Your task to perform on an android device: Go to internet settings Image 0: 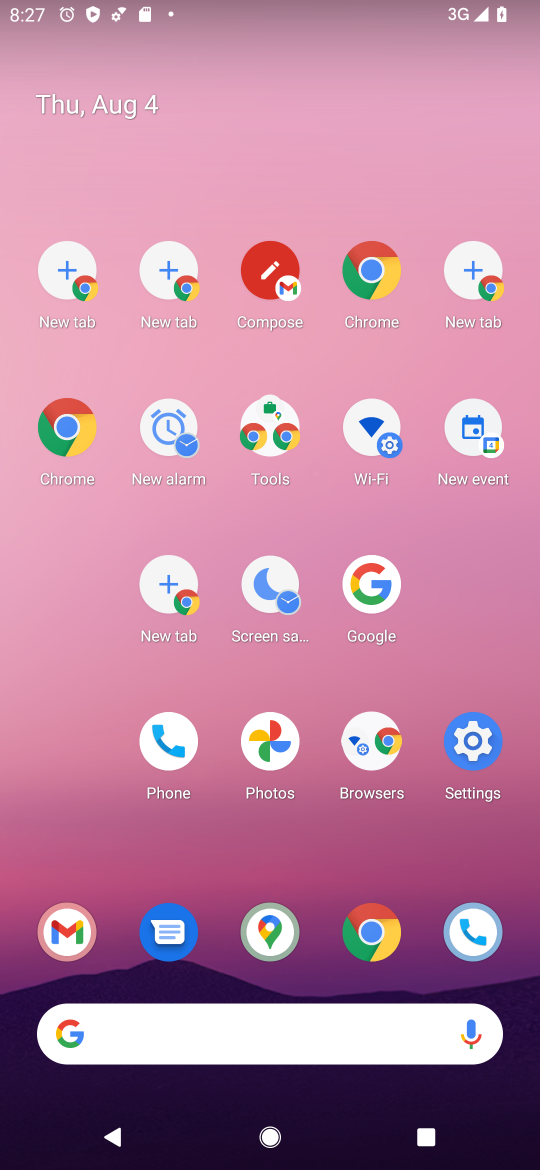
Step 0: drag from (260, 1116) to (310, 450)
Your task to perform on an android device: Go to internet settings Image 1: 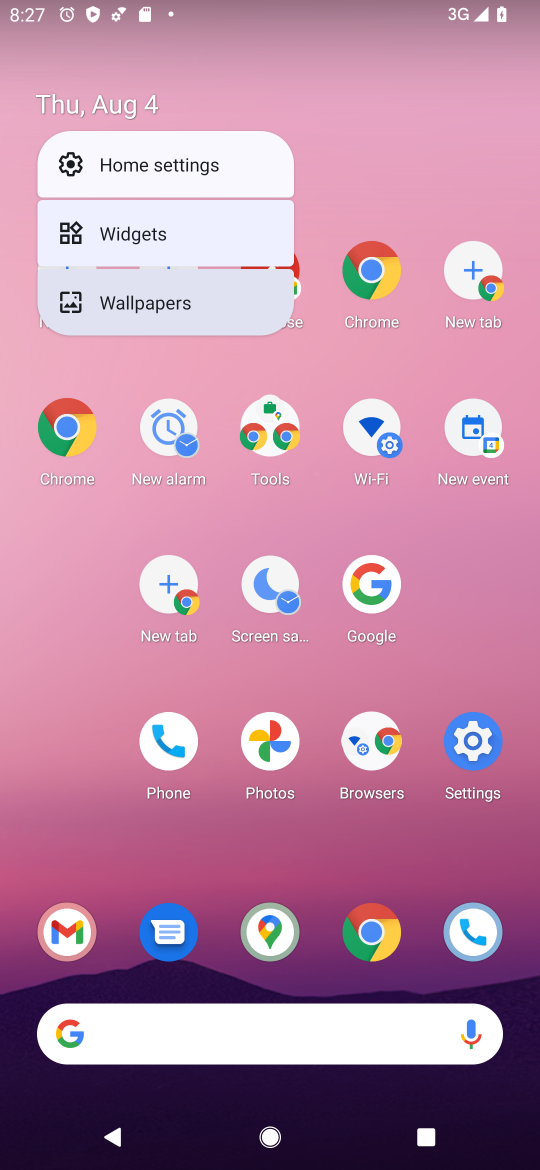
Step 1: click (469, 749)
Your task to perform on an android device: Go to internet settings Image 2: 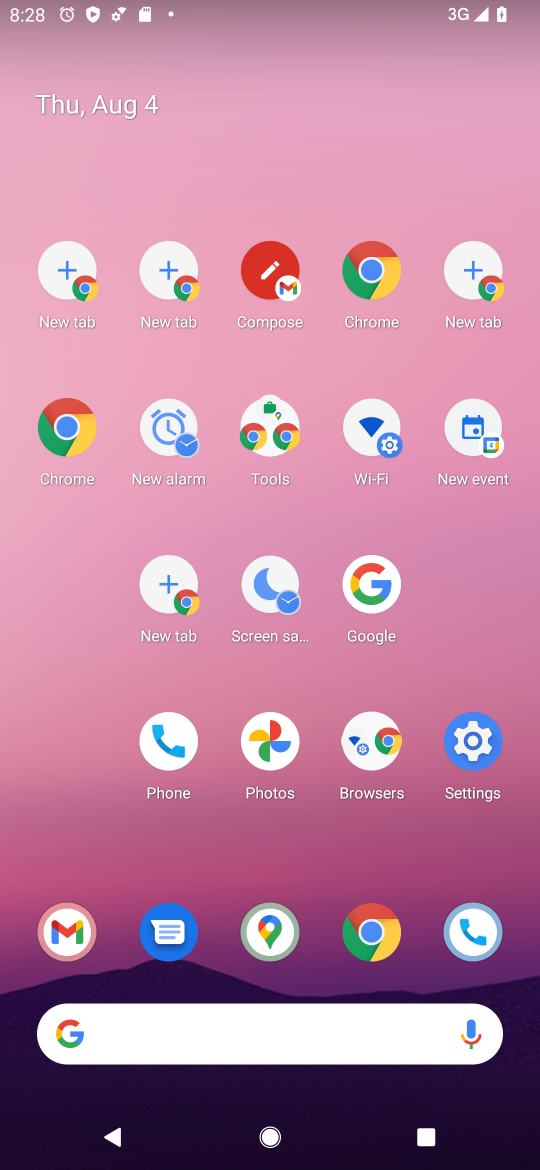
Step 2: click (481, 743)
Your task to perform on an android device: Go to internet settings Image 3: 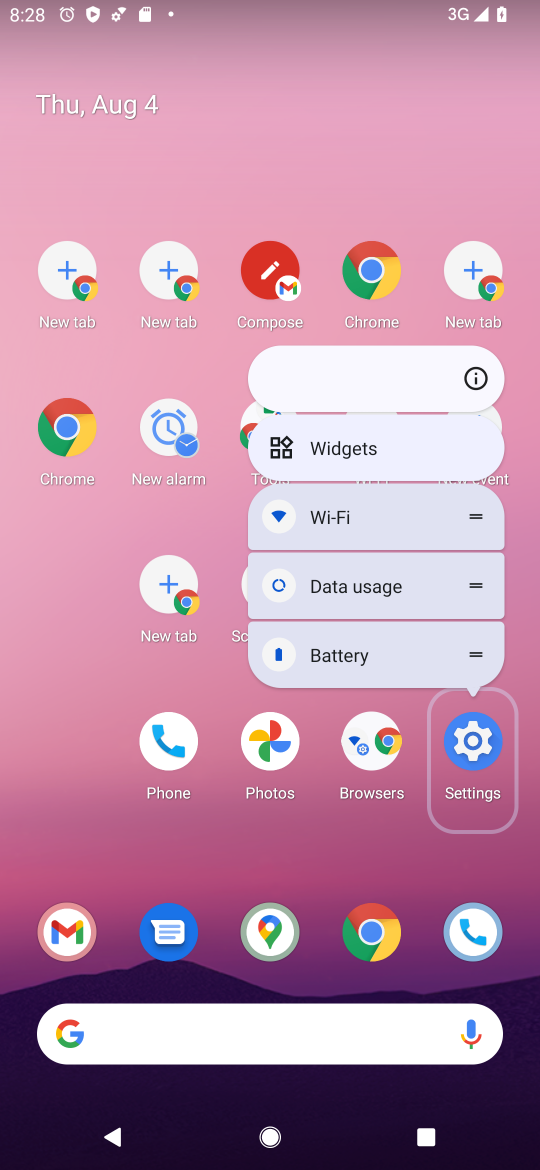
Step 3: task complete